Your task to perform on an android device: open app "Paramount+ | Peak Streaming" (install if not already installed), go to login, and select forgot password Image 0: 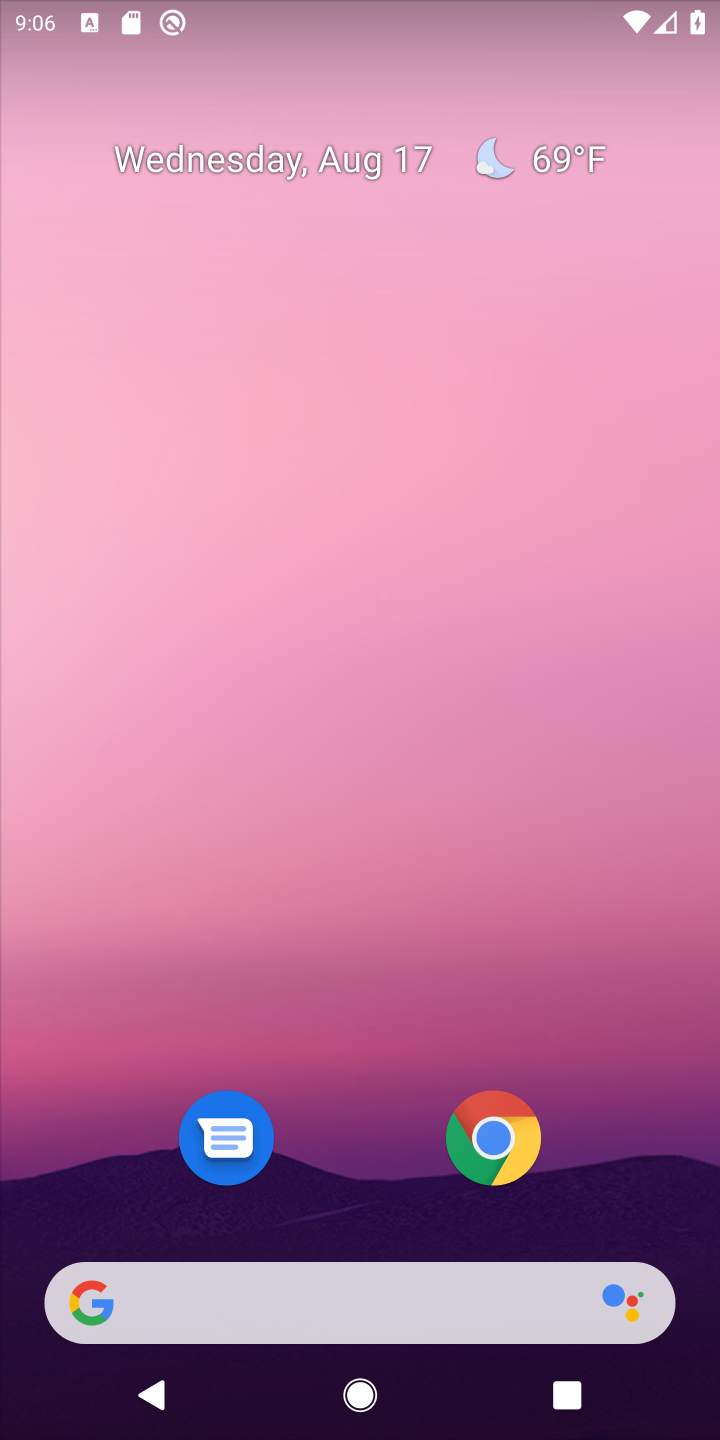
Step 0: drag from (334, 738) to (345, 407)
Your task to perform on an android device: open app "Paramount+ | Peak Streaming" (install if not already installed), go to login, and select forgot password Image 1: 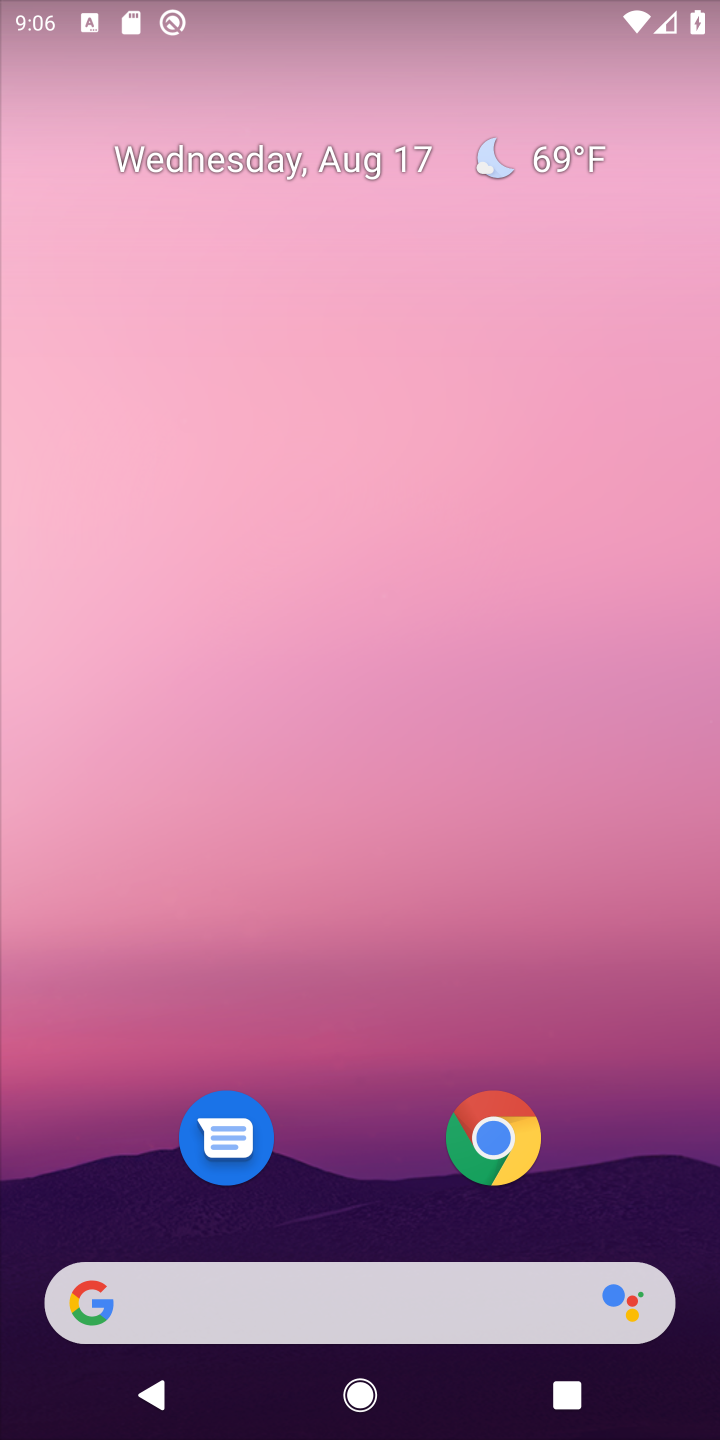
Step 1: drag from (335, 986) to (331, 254)
Your task to perform on an android device: open app "Paramount+ | Peak Streaming" (install if not already installed), go to login, and select forgot password Image 2: 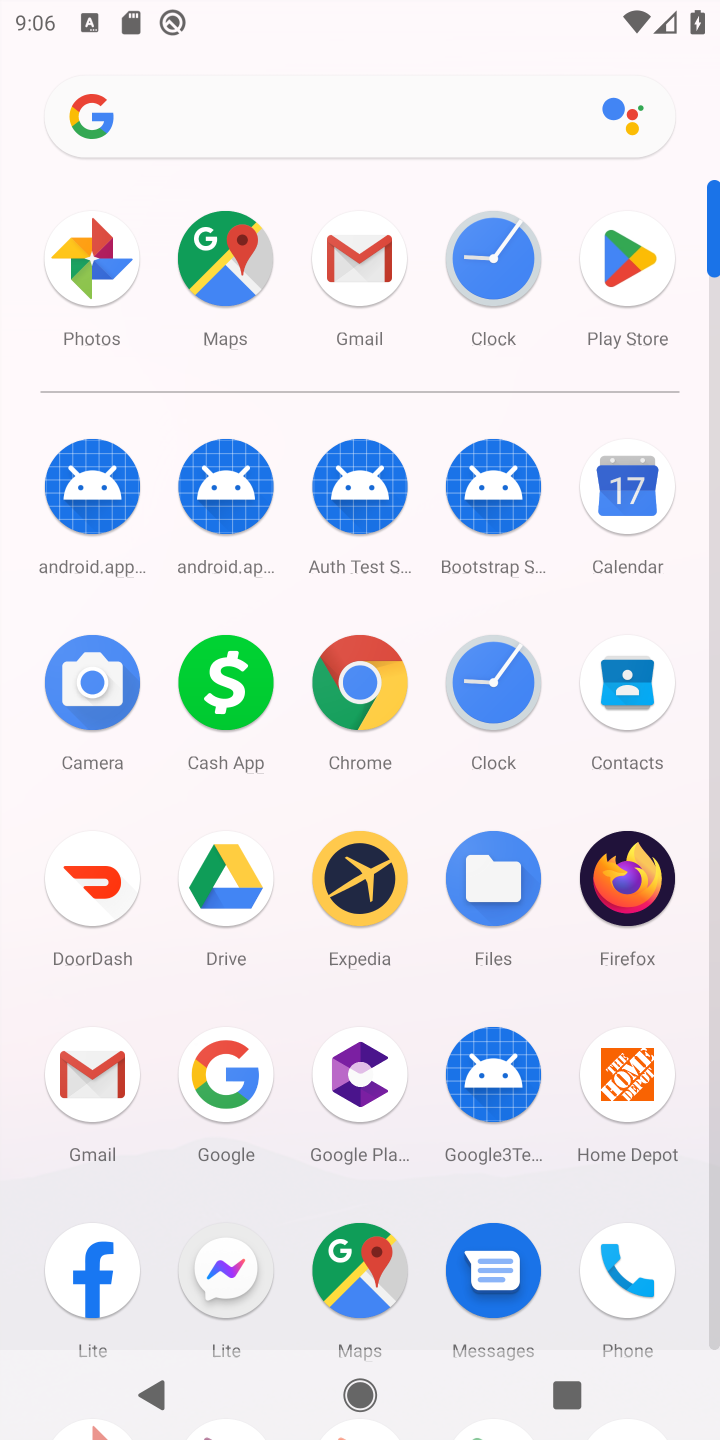
Step 2: click (608, 245)
Your task to perform on an android device: open app "Paramount+ | Peak Streaming" (install if not already installed), go to login, and select forgot password Image 3: 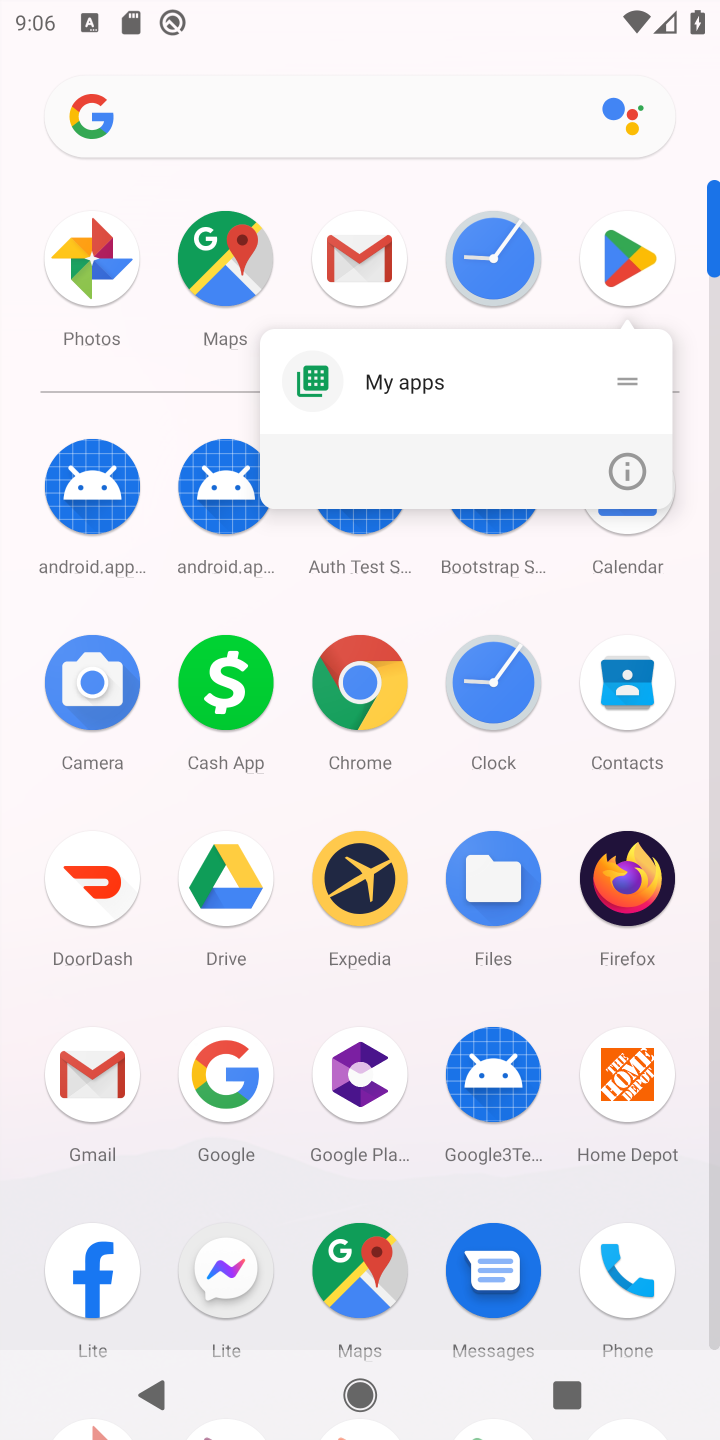
Step 3: click (626, 240)
Your task to perform on an android device: open app "Paramount+ | Peak Streaming" (install if not already installed), go to login, and select forgot password Image 4: 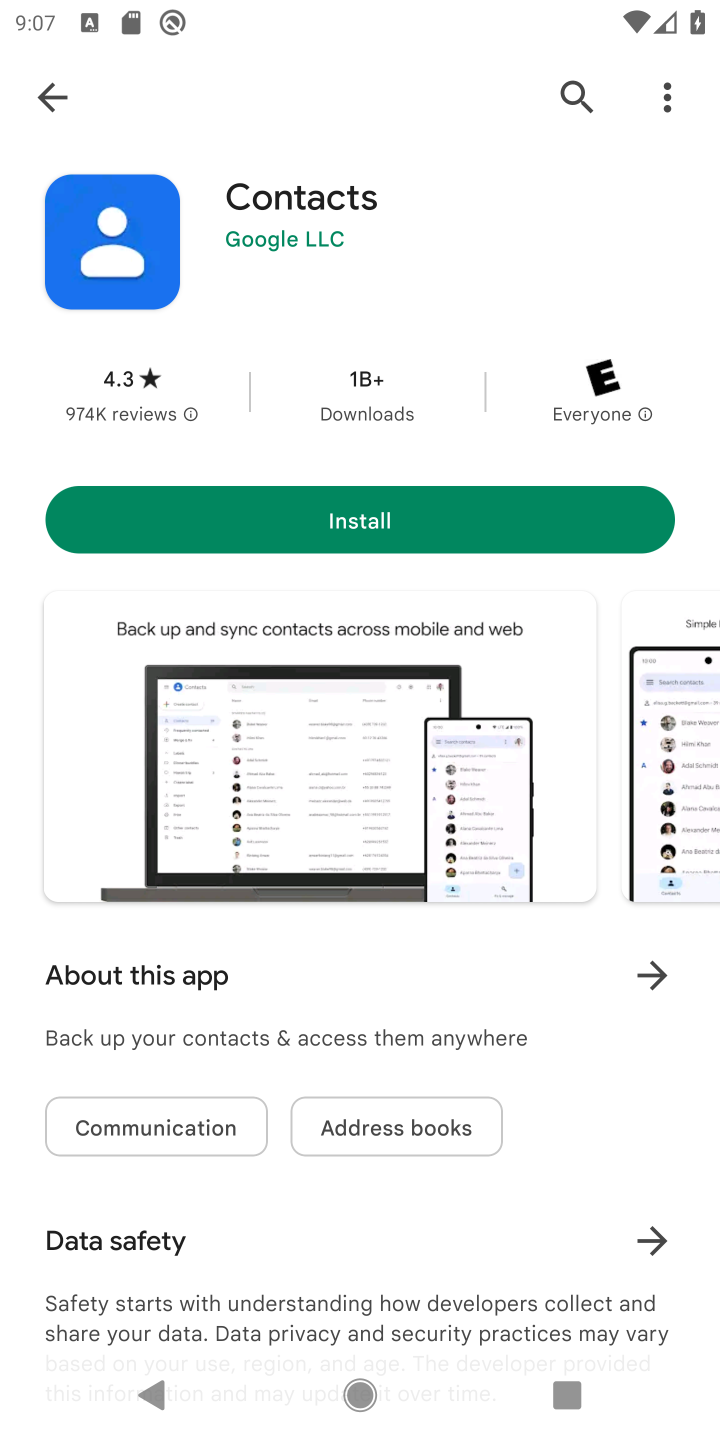
Step 4: click (52, 107)
Your task to perform on an android device: open app "Paramount+ | Peak Streaming" (install if not already installed), go to login, and select forgot password Image 5: 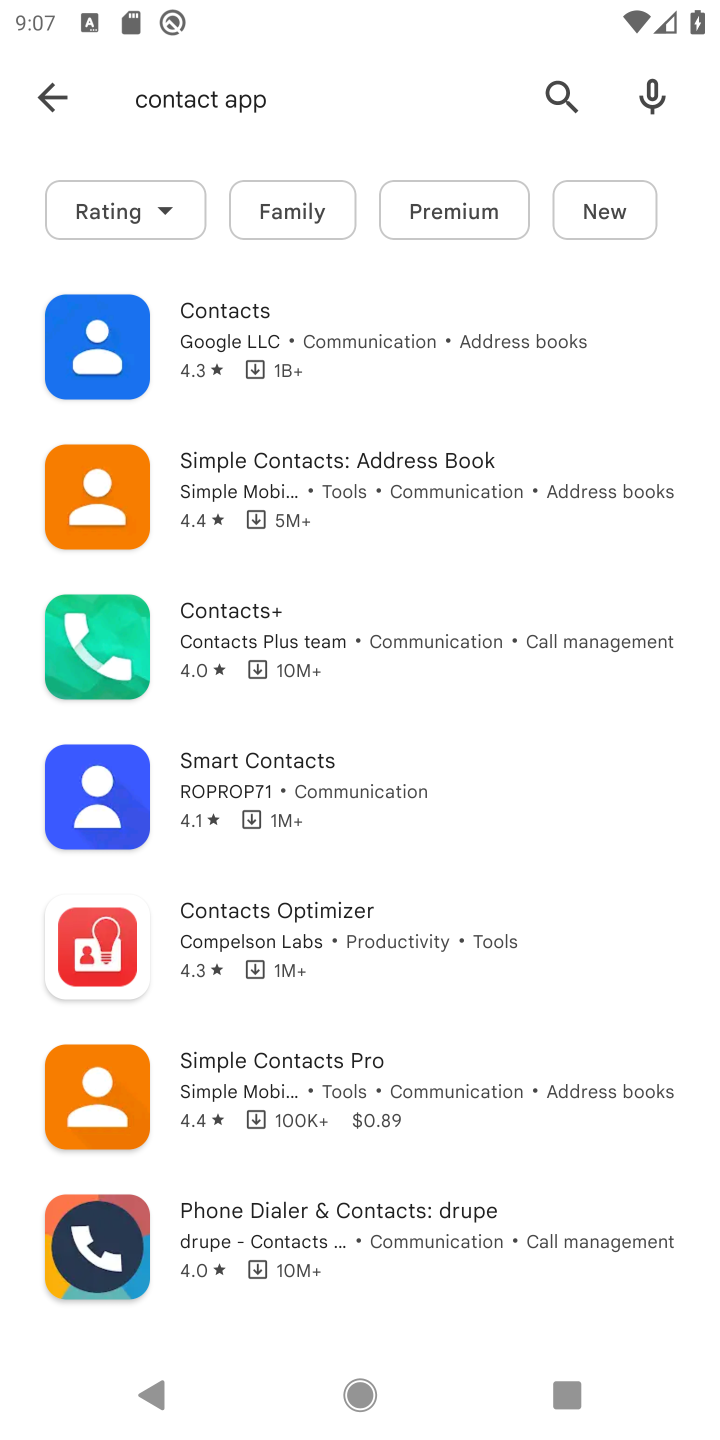
Step 5: click (52, 107)
Your task to perform on an android device: open app "Paramount+ | Peak Streaming" (install if not already installed), go to login, and select forgot password Image 6: 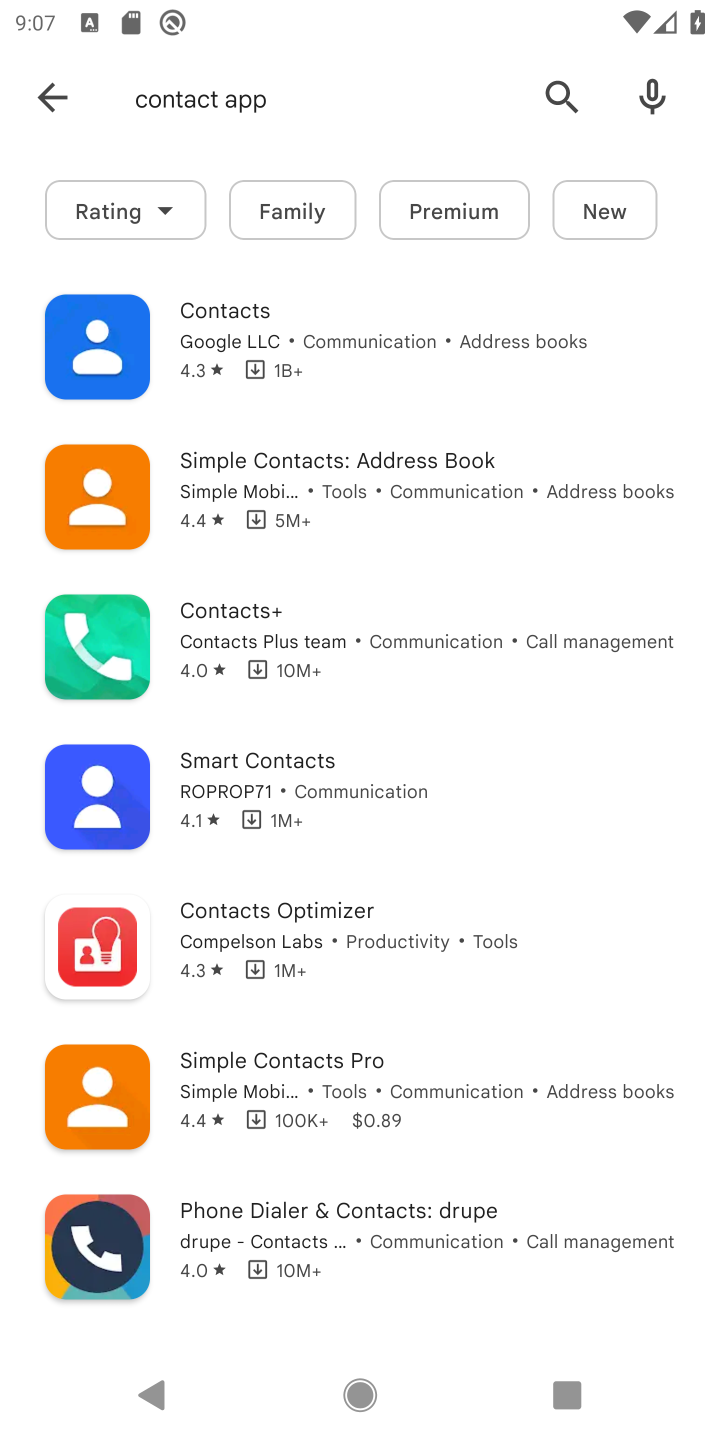
Step 6: click (547, 79)
Your task to perform on an android device: open app "Paramount+ | Peak Streaming" (install if not already installed), go to login, and select forgot password Image 7: 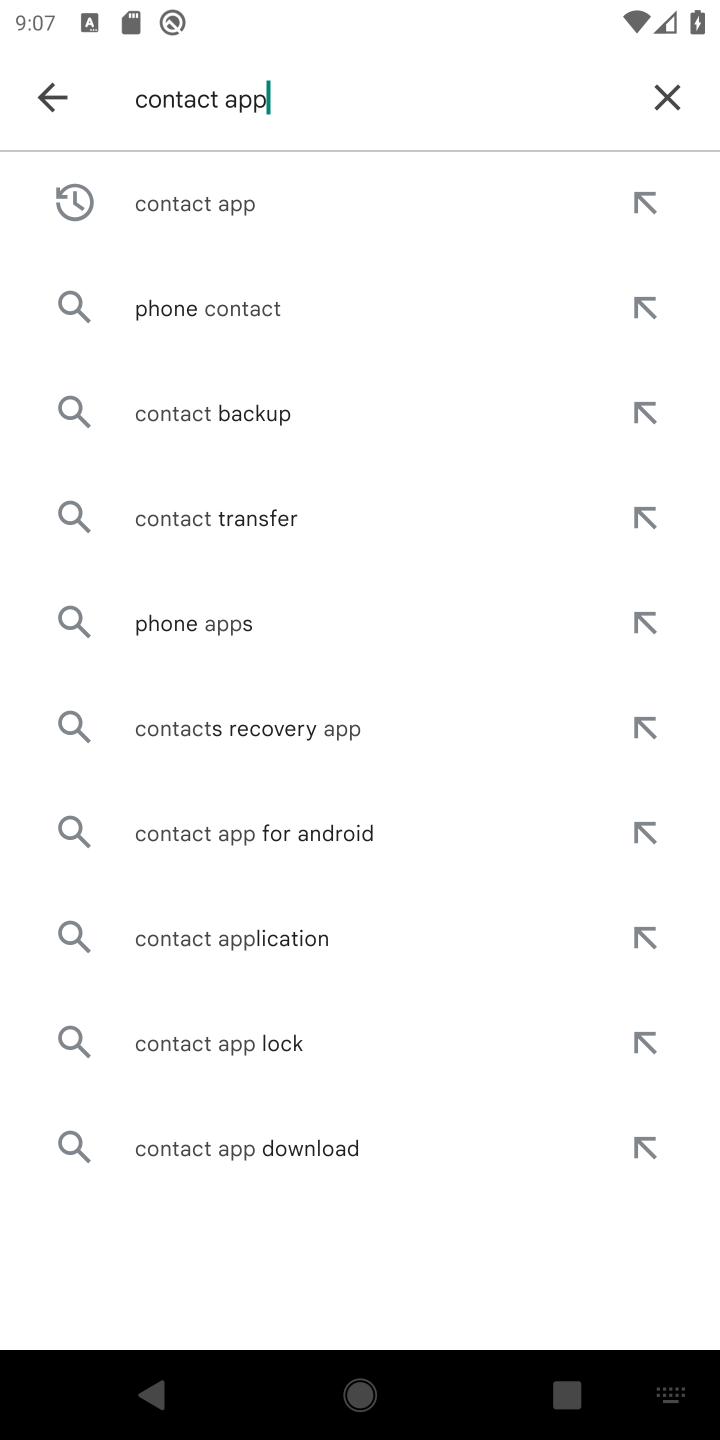
Step 7: click (662, 87)
Your task to perform on an android device: open app "Paramount+ | Peak Streaming" (install if not already installed), go to login, and select forgot password Image 8: 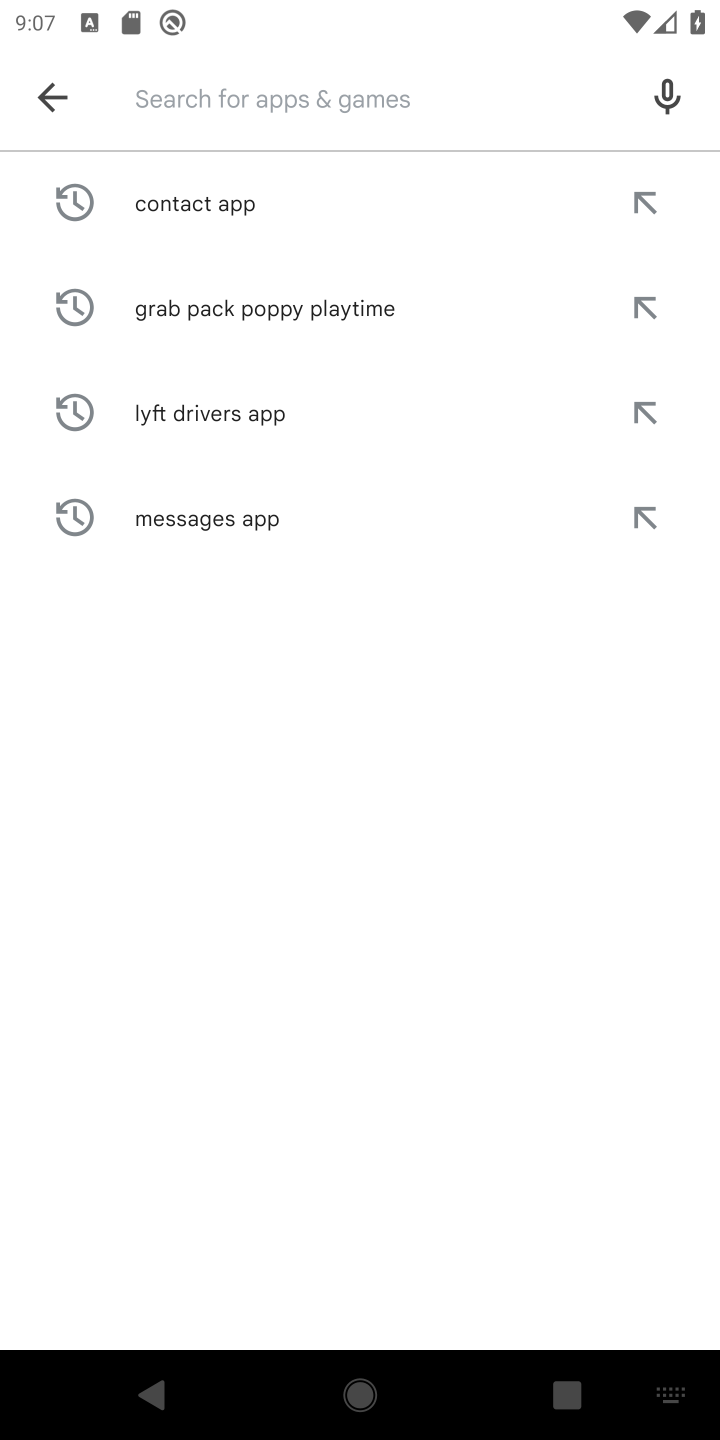
Step 8: click (351, 100)
Your task to perform on an android device: open app "Paramount+ | Peak Streaming" (install if not already installed), go to login, and select forgot password Image 9: 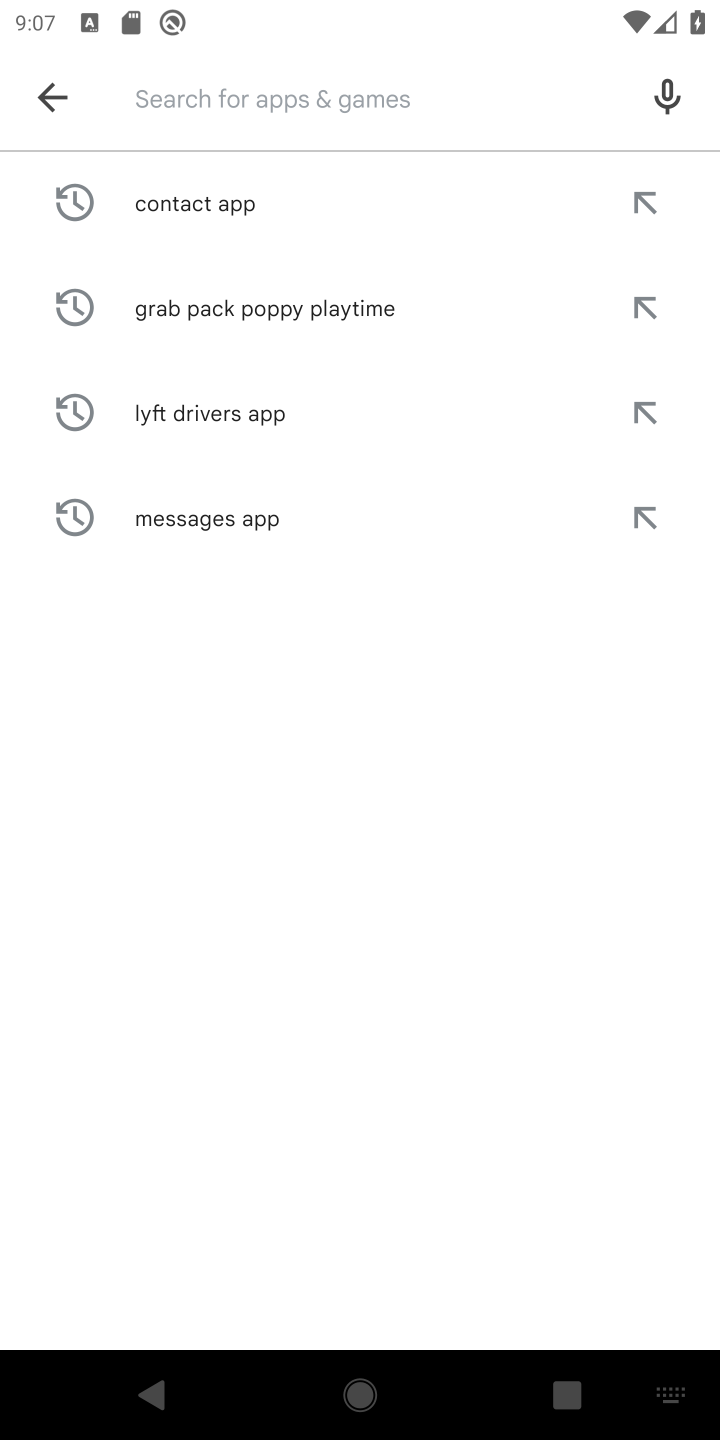
Step 9: type "Paramount "
Your task to perform on an android device: open app "Paramount+ | Peak Streaming" (install if not already installed), go to login, and select forgot password Image 10: 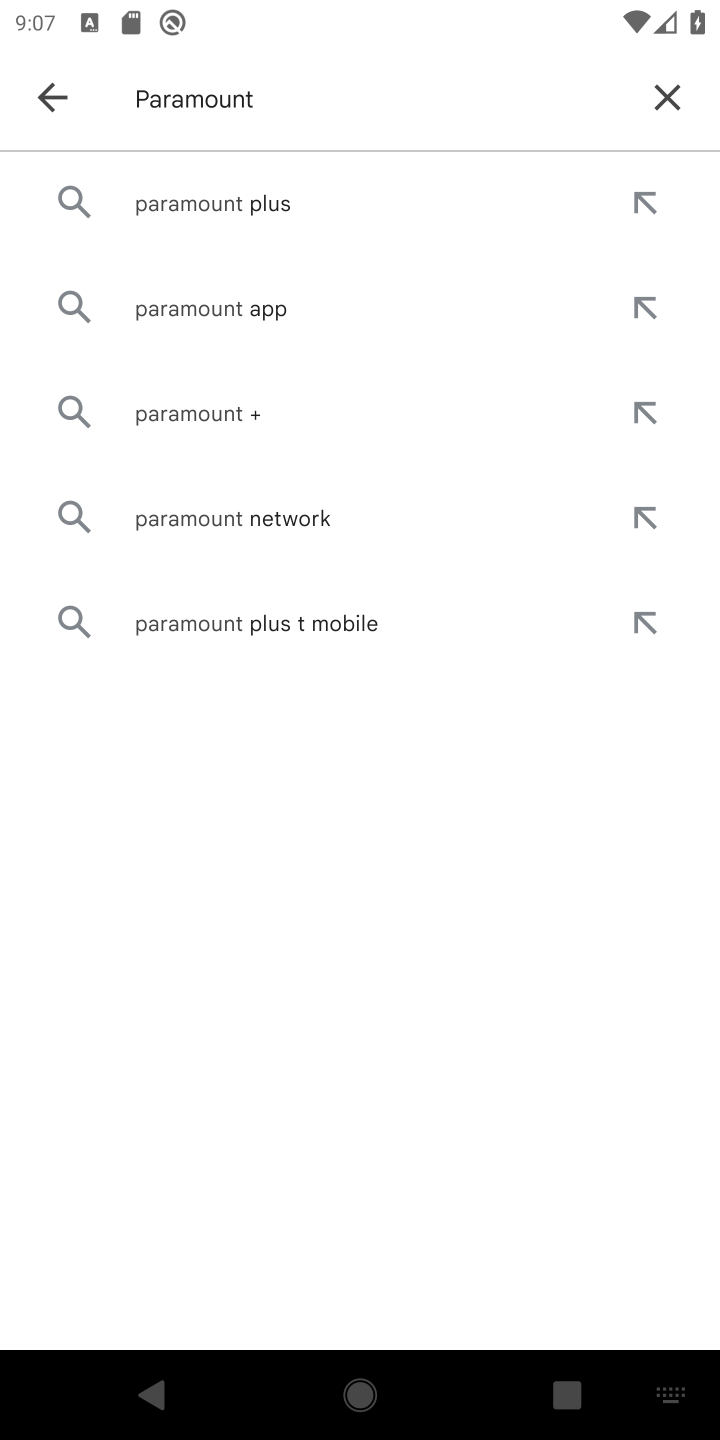
Step 10: click (226, 304)
Your task to perform on an android device: open app "Paramount+ | Peak Streaming" (install if not already installed), go to login, and select forgot password Image 11: 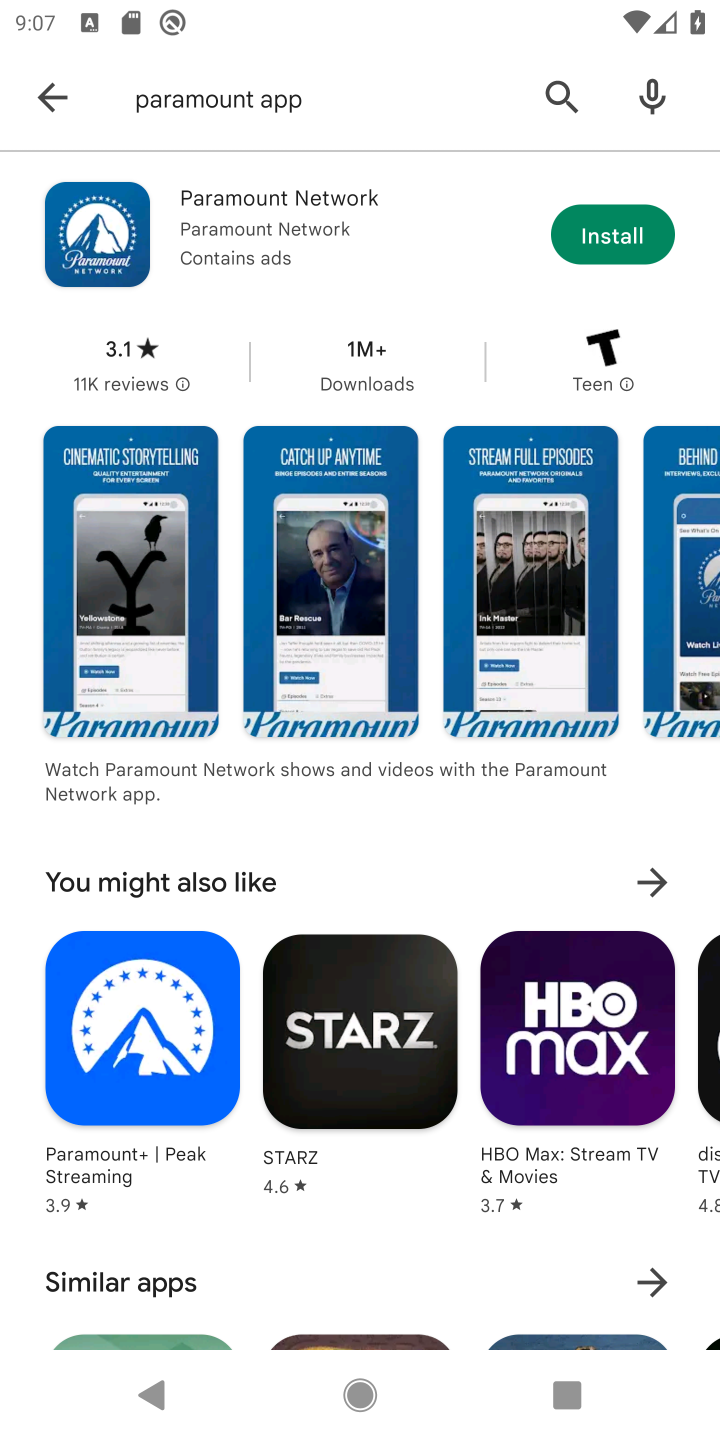
Step 11: click (623, 236)
Your task to perform on an android device: open app "Paramount+ | Peak Streaming" (install if not already installed), go to login, and select forgot password Image 12: 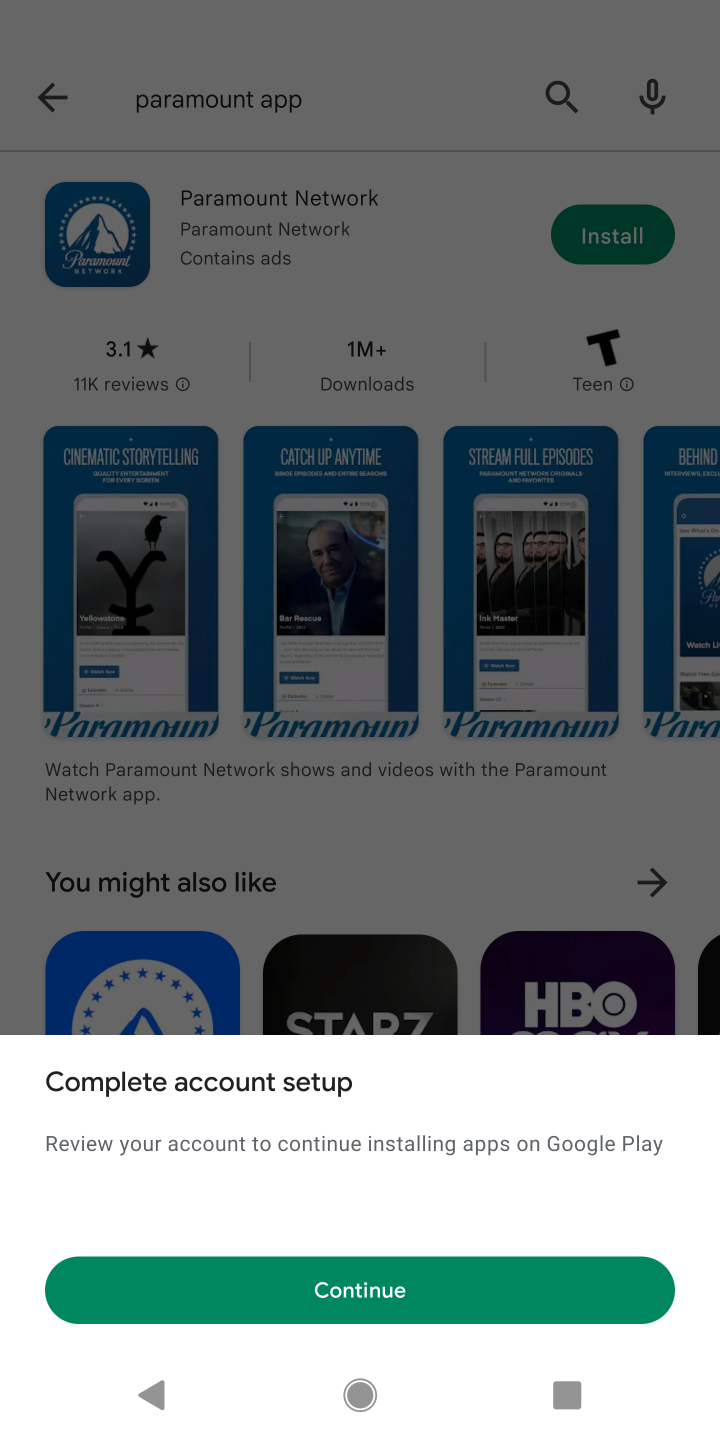
Step 12: task complete